Your task to perform on an android device: Search for Italian restaurants on Maps Image 0: 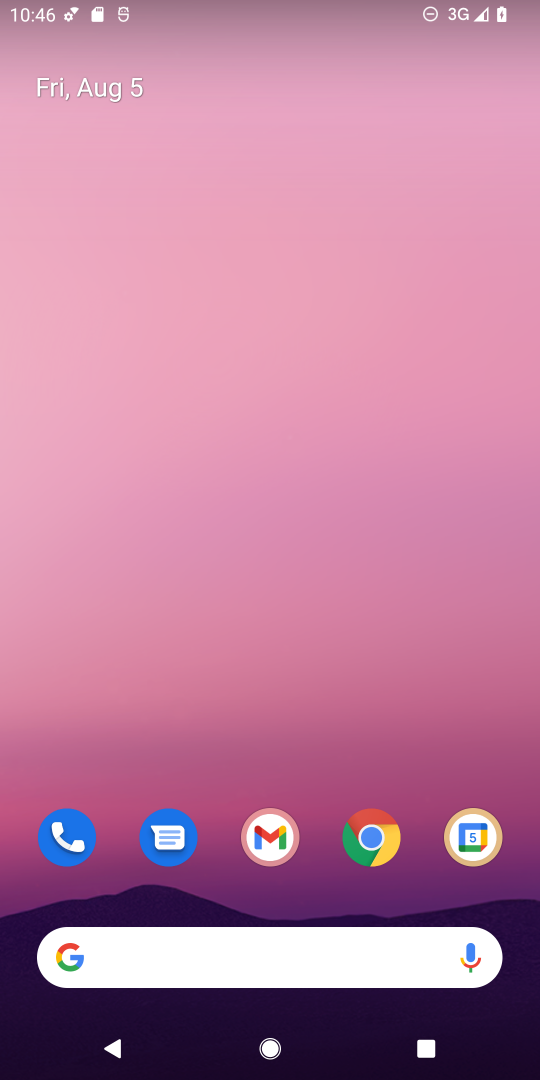
Step 0: drag from (310, 678) to (393, 0)
Your task to perform on an android device: Search for Italian restaurants on Maps Image 1: 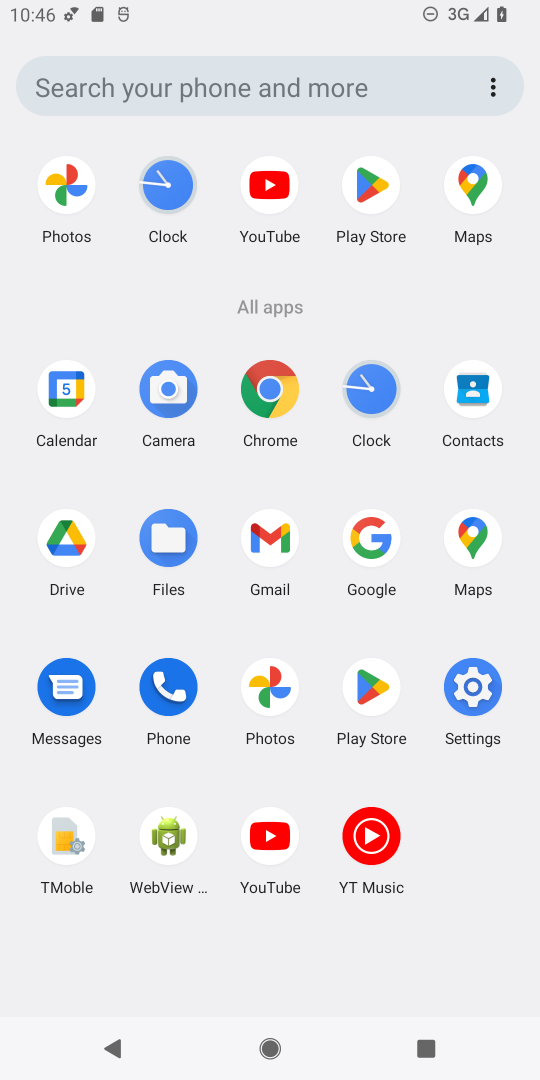
Step 1: click (474, 536)
Your task to perform on an android device: Search for Italian restaurants on Maps Image 2: 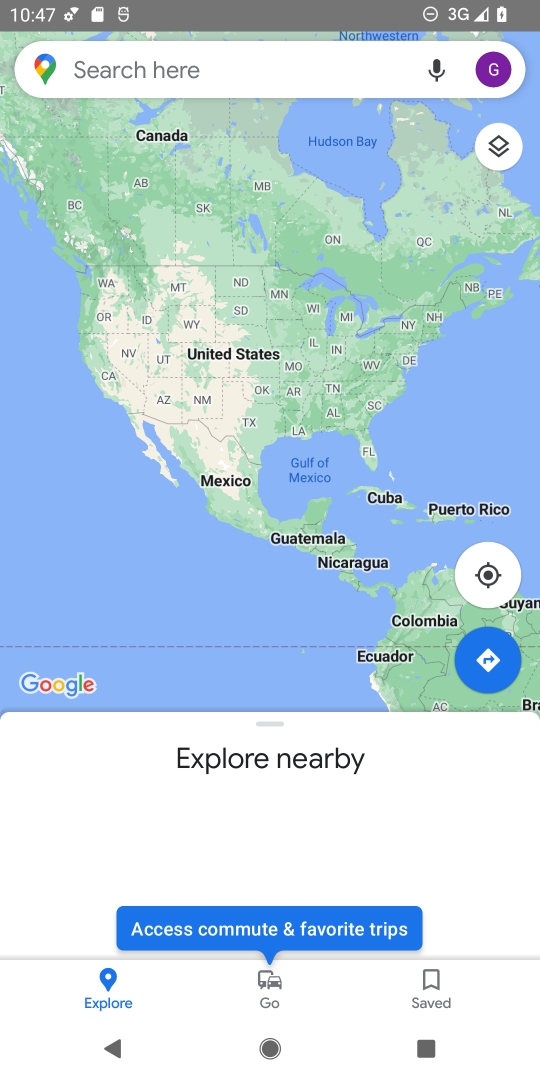
Step 2: click (335, 74)
Your task to perform on an android device: Search for Italian restaurants on Maps Image 3: 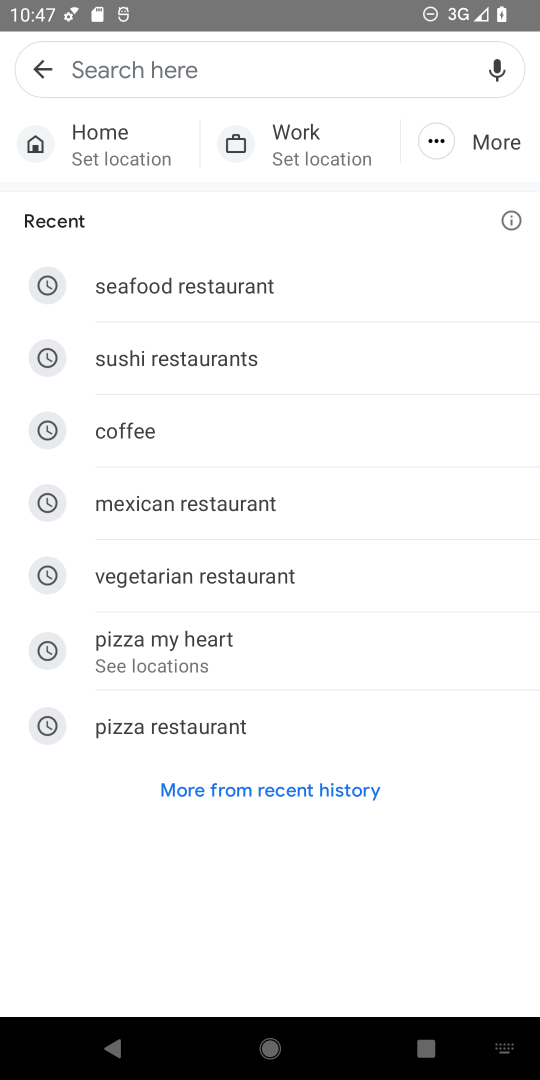
Step 3: type "italian restaurants"
Your task to perform on an android device: Search for Italian restaurants on Maps Image 4: 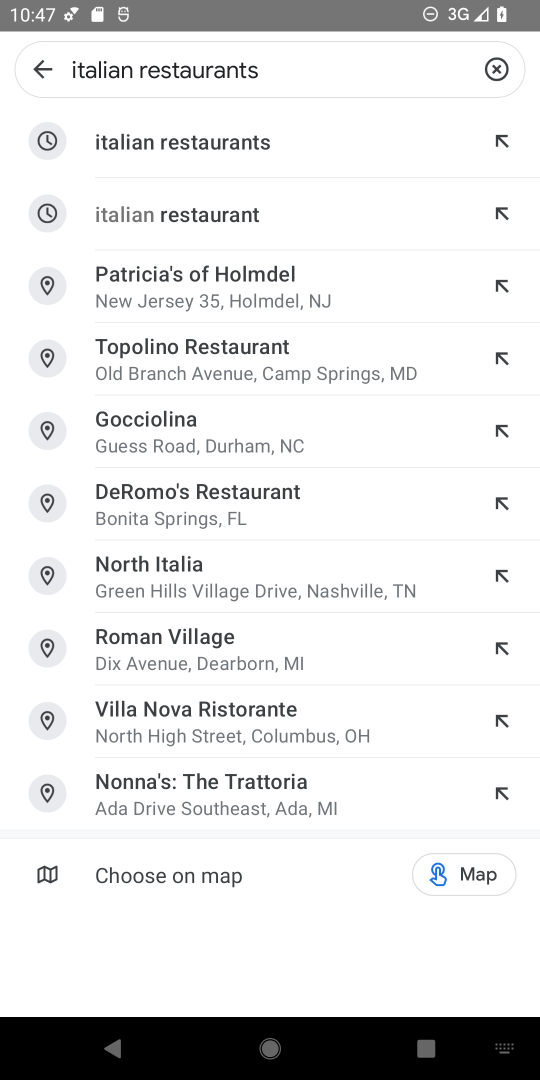
Step 4: click (239, 146)
Your task to perform on an android device: Search for Italian restaurants on Maps Image 5: 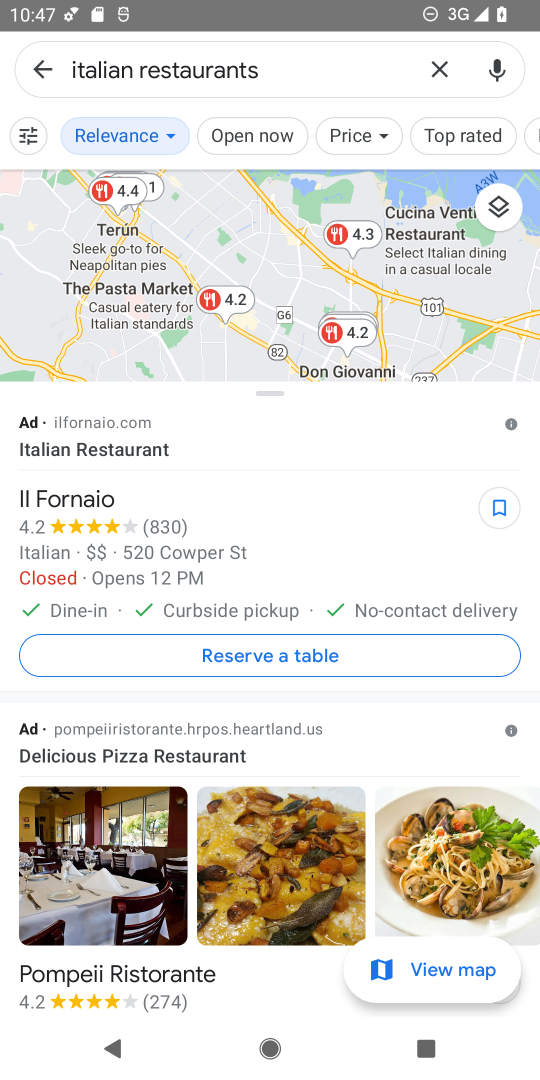
Step 5: task complete